Your task to perform on an android device: Turn on the flashlight Image 0: 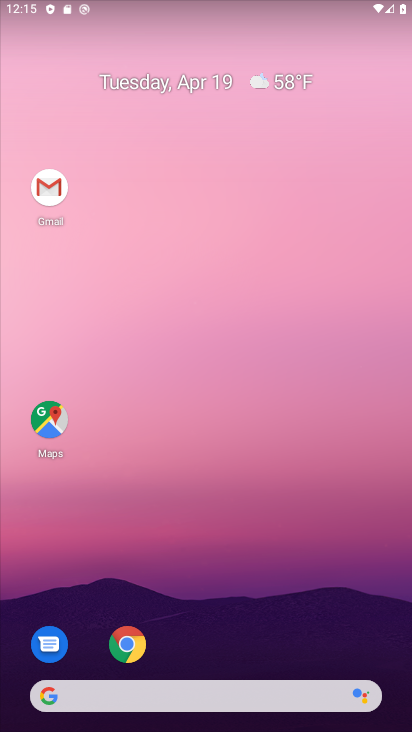
Step 0: drag from (243, 0) to (232, 394)
Your task to perform on an android device: Turn on the flashlight Image 1: 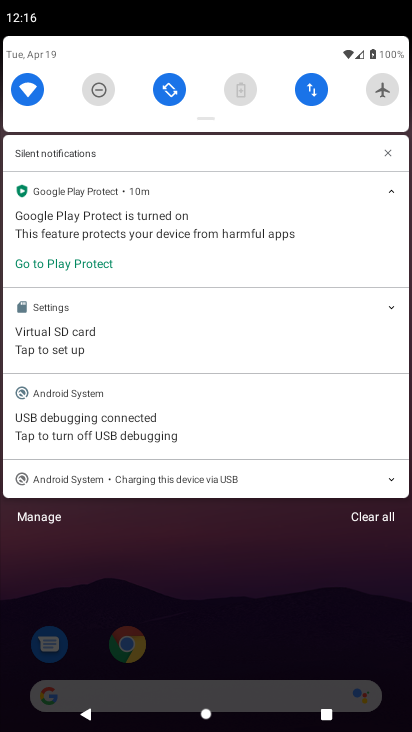
Step 1: task complete